Your task to perform on an android device: empty trash in google photos Image 0: 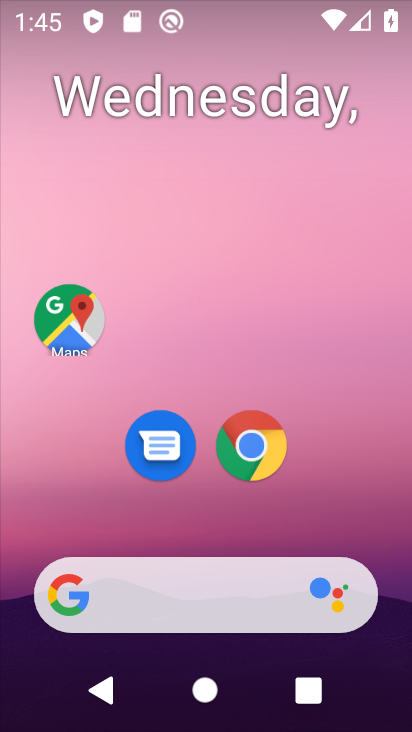
Step 0: drag from (203, 546) to (183, 97)
Your task to perform on an android device: empty trash in google photos Image 1: 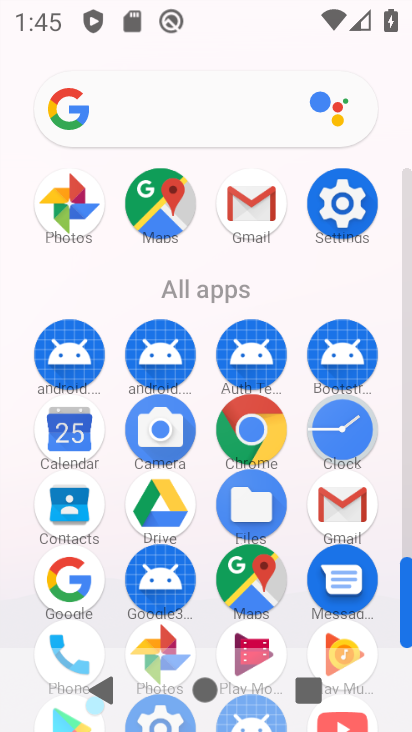
Step 1: drag from (162, 628) to (200, 302)
Your task to perform on an android device: empty trash in google photos Image 2: 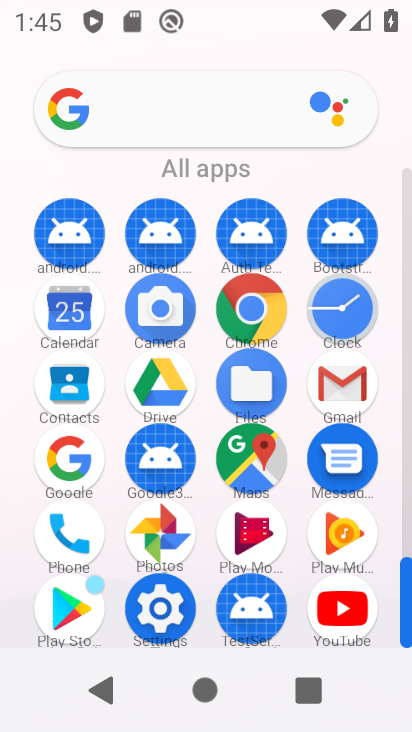
Step 2: click (165, 508)
Your task to perform on an android device: empty trash in google photos Image 3: 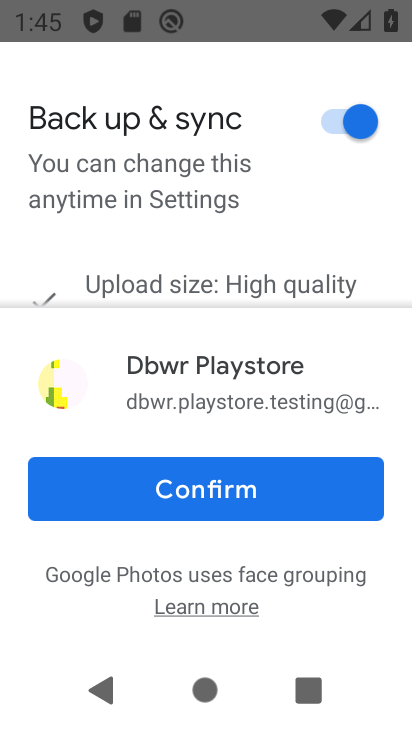
Step 3: click (188, 486)
Your task to perform on an android device: empty trash in google photos Image 4: 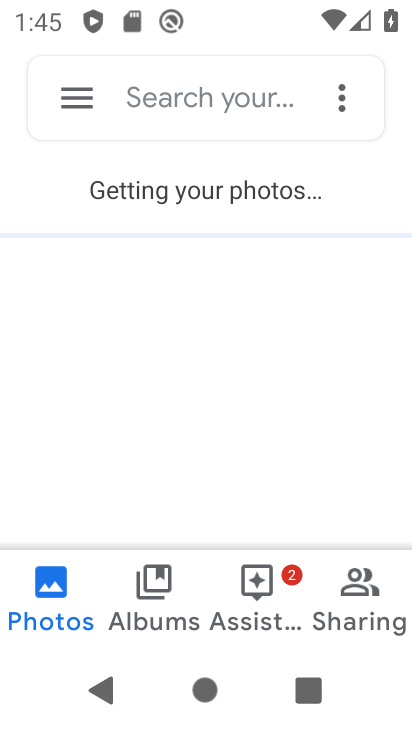
Step 4: click (92, 95)
Your task to perform on an android device: empty trash in google photos Image 5: 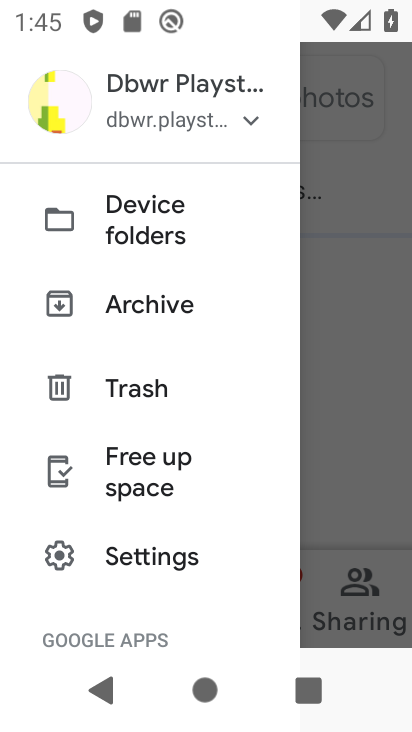
Step 5: click (168, 388)
Your task to perform on an android device: empty trash in google photos Image 6: 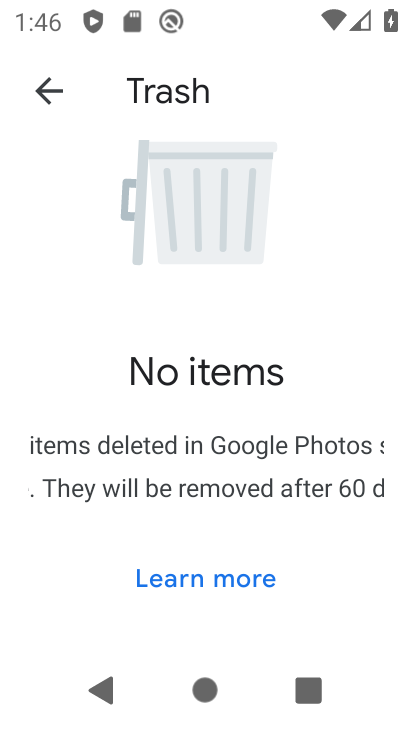
Step 6: task complete